Your task to perform on an android device: delete a single message in the gmail app Image 0: 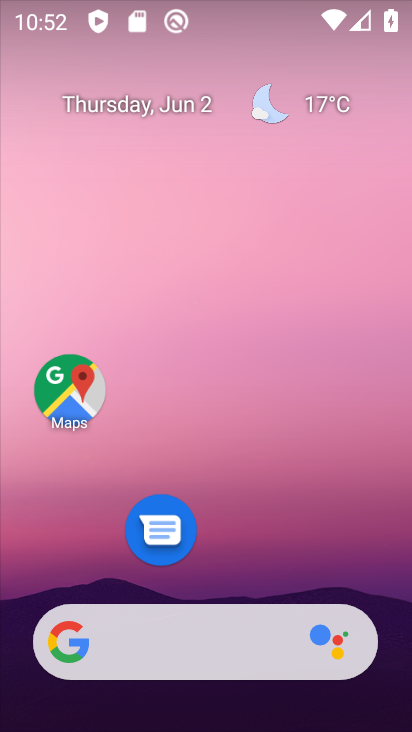
Step 0: drag from (254, 644) to (219, 207)
Your task to perform on an android device: delete a single message in the gmail app Image 1: 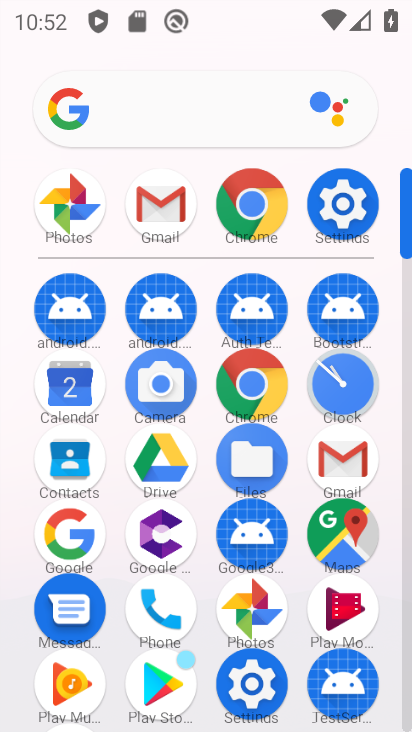
Step 1: click (336, 449)
Your task to perform on an android device: delete a single message in the gmail app Image 2: 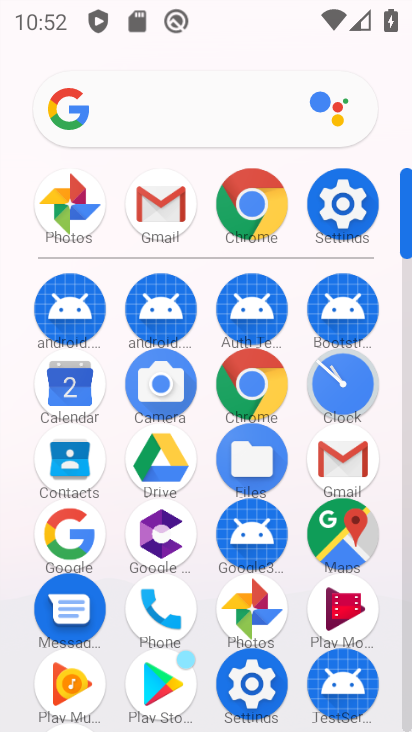
Step 2: click (339, 451)
Your task to perform on an android device: delete a single message in the gmail app Image 3: 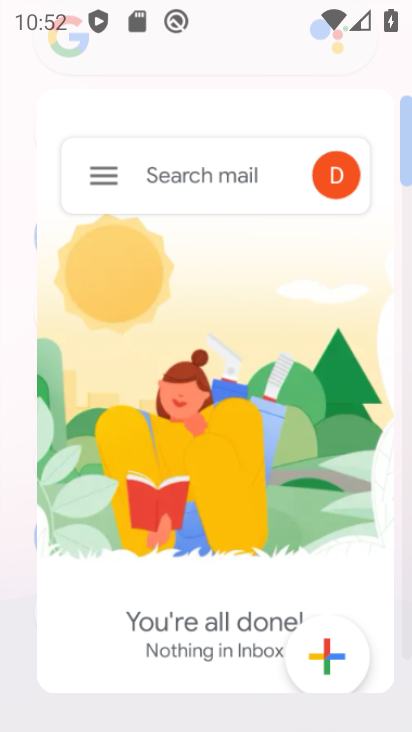
Step 3: click (339, 451)
Your task to perform on an android device: delete a single message in the gmail app Image 4: 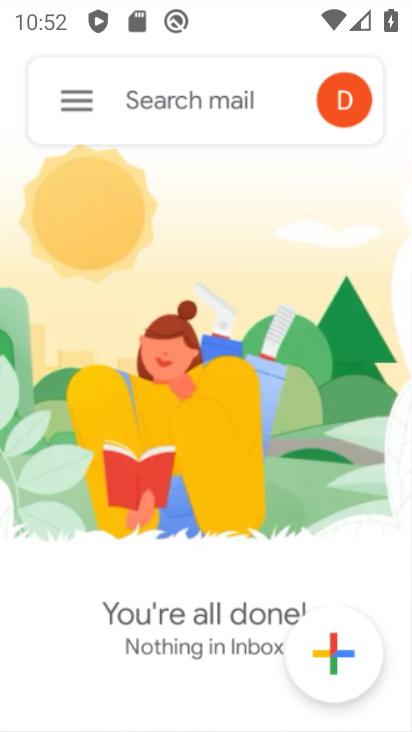
Step 4: click (339, 451)
Your task to perform on an android device: delete a single message in the gmail app Image 5: 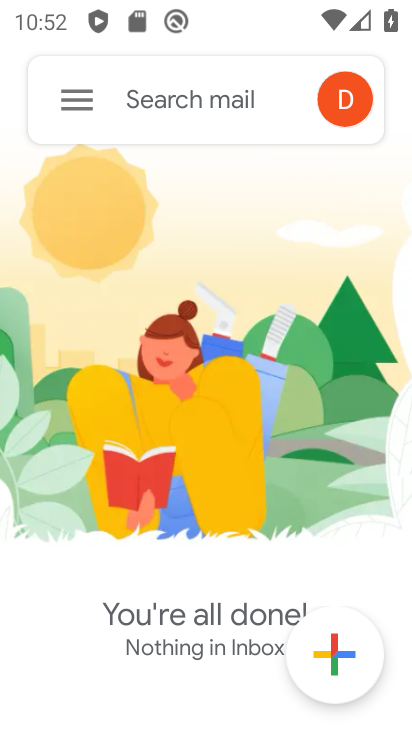
Step 5: click (73, 102)
Your task to perform on an android device: delete a single message in the gmail app Image 6: 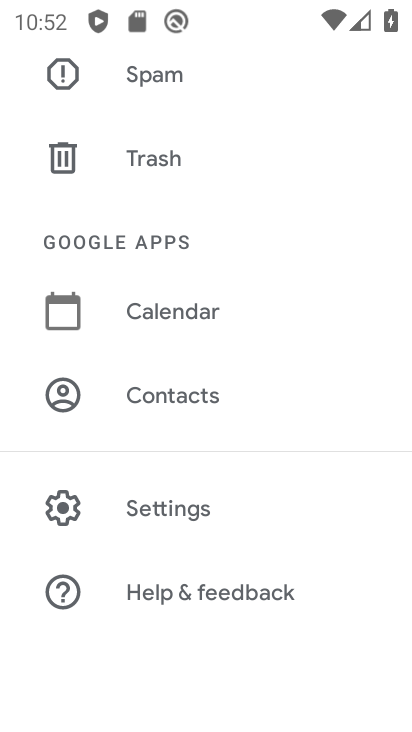
Step 6: drag from (205, 247) to (235, 469)
Your task to perform on an android device: delete a single message in the gmail app Image 7: 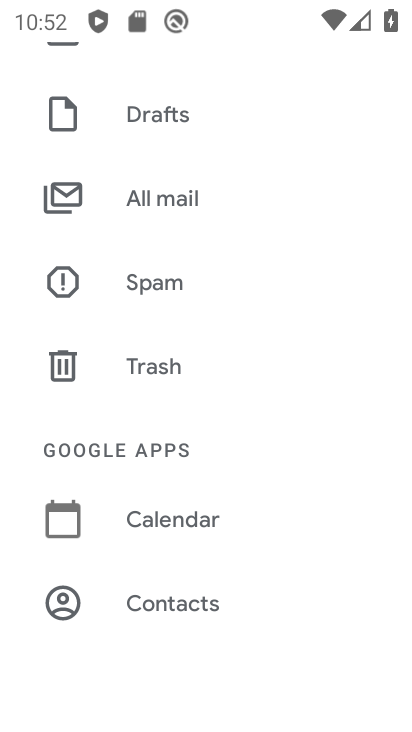
Step 7: drag from (188, 225) to (226, 429)
Your task to perform on an android device: delete a single message in the gmail app Image 8: 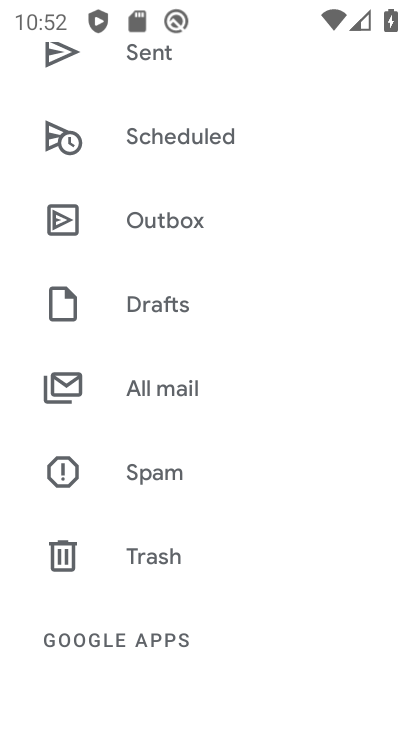
Step 8: click (170, 381)
Your task to perform on an android device: delete a single message in the gmail app Image 9: 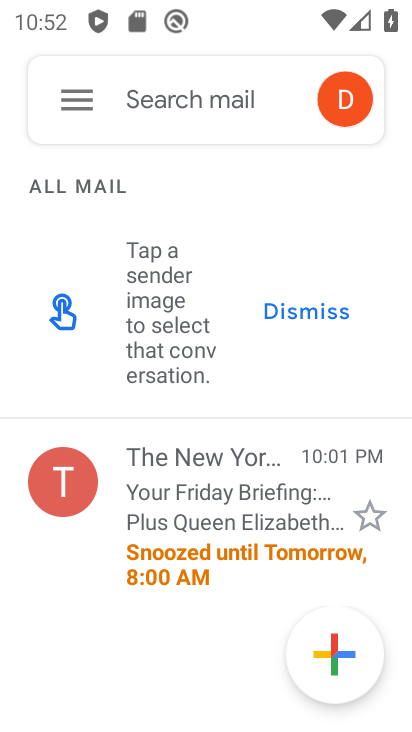
Step 9: click (238, 505)
Your task to perform on an android device: delete a single message in the gmail app Image 10: 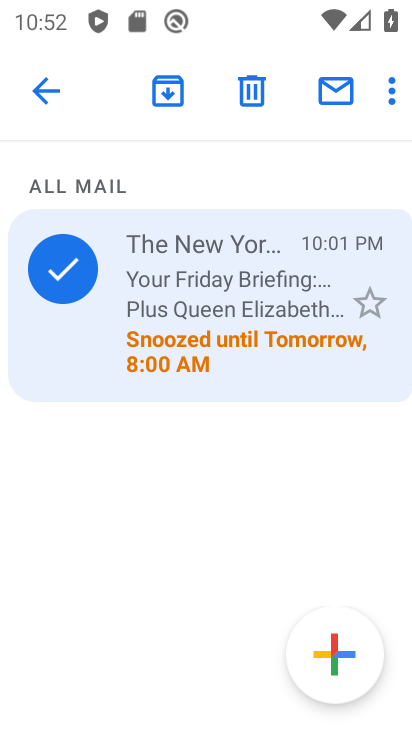
Step 10: click (248, 90)
Your task to perform on an android device: delete a single message in the gmail app Image 11: 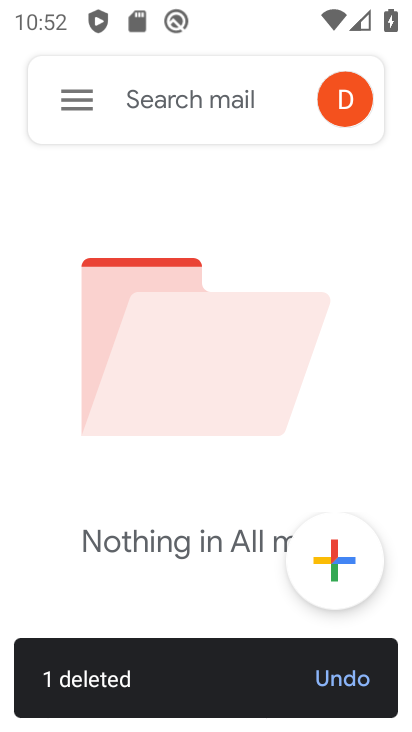
Step 11: task complete